Your task to perform on an android device: move a message to another label in the gmail app Image 0: 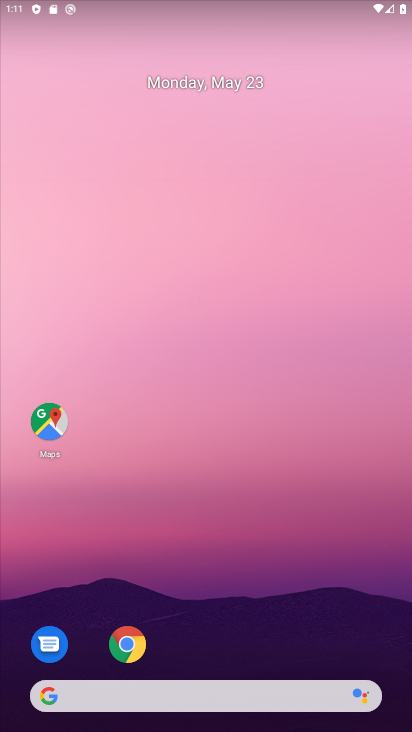
Step 0: drag from (202, 524) to (122, 6)
Your task to perform on an android device: move a message to another label in the gmail app Image 1: 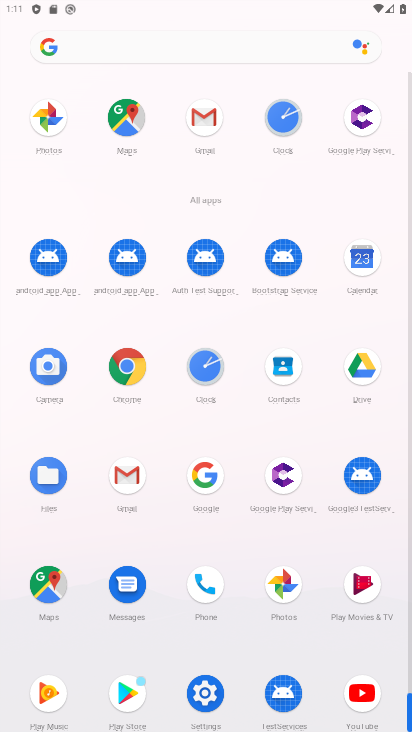
Step 1: drag from (8, 511) to (12, 145)
Your task to perform on an android device: move a message to another label in the gmail app Image 2: 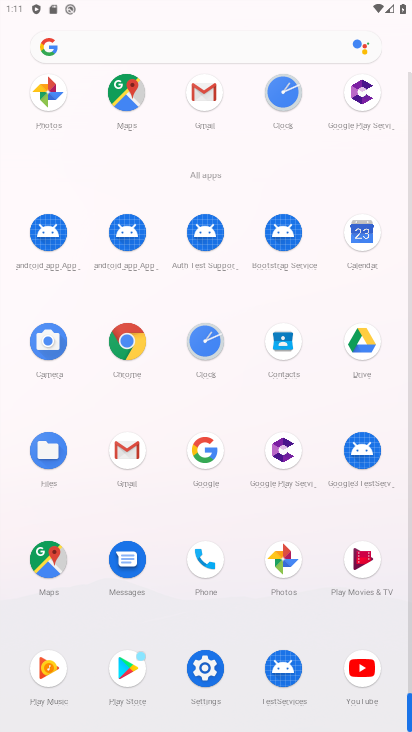
Step 2: click (128, 449)
Your task to perform on an android device: move a message to another label in the gmail app Image 3: 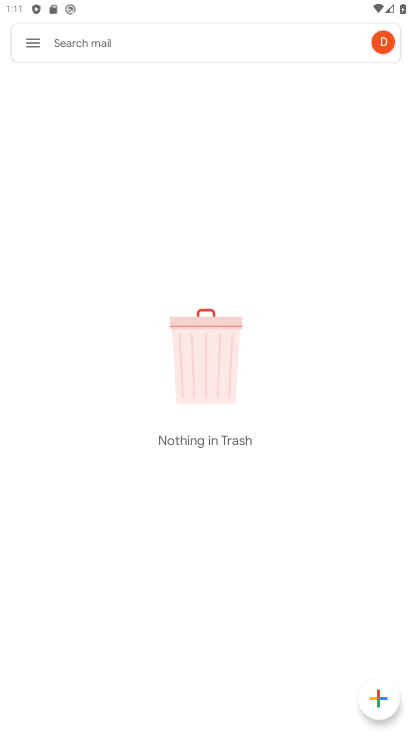
Step 3: click (25, 44)
Your task to perform on an android device: move a message to another label in the gmail app Image 4: 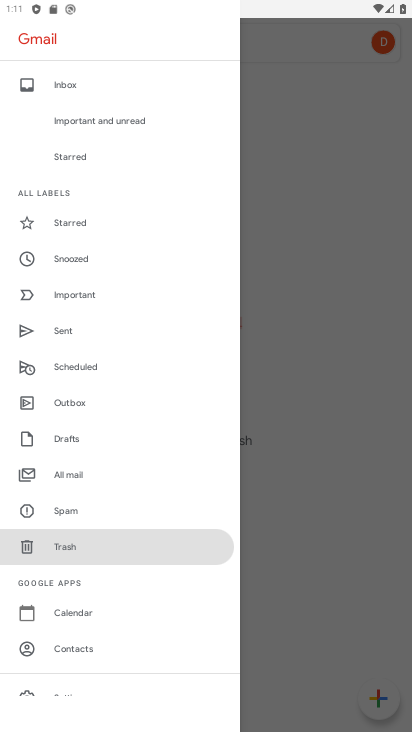
Step 4: click (99, 217)
Your task to perform on an android device: move a message to another label in the gmail app Image 5: 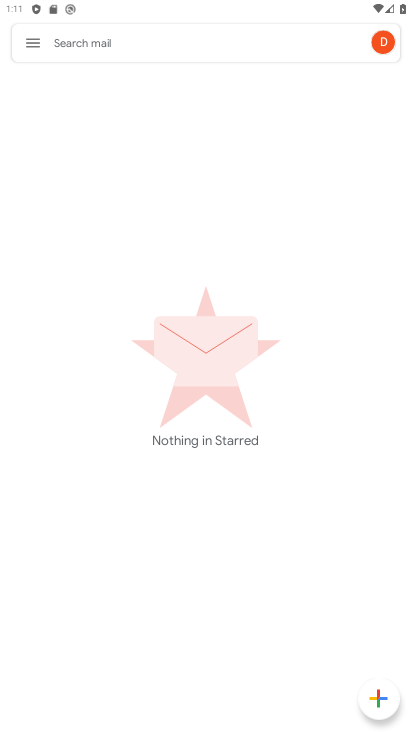
Step 5: click (32, 38)
Your task to perform on an android device: move a message to another label in the gmail app Image 6: 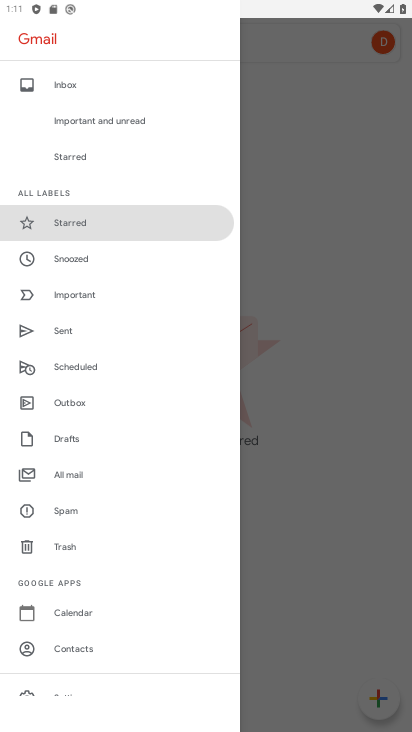
Step 6: click (87, 474)
Your task to perform on an android device: move a message to another label in the gmail app Image 7: 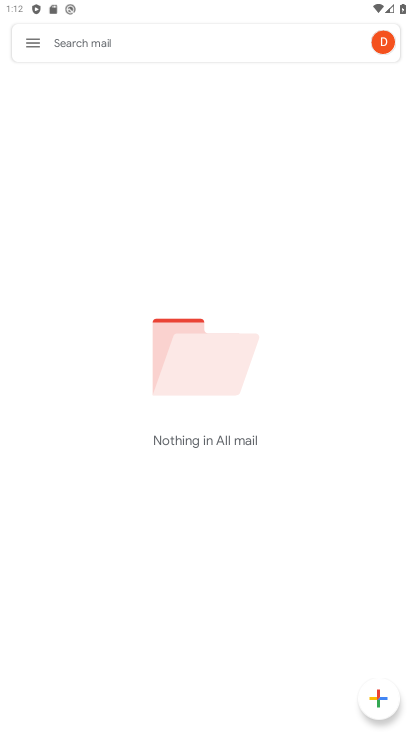
Step 7: task complete